Your task to perform on an android device: Open settings Image 0: 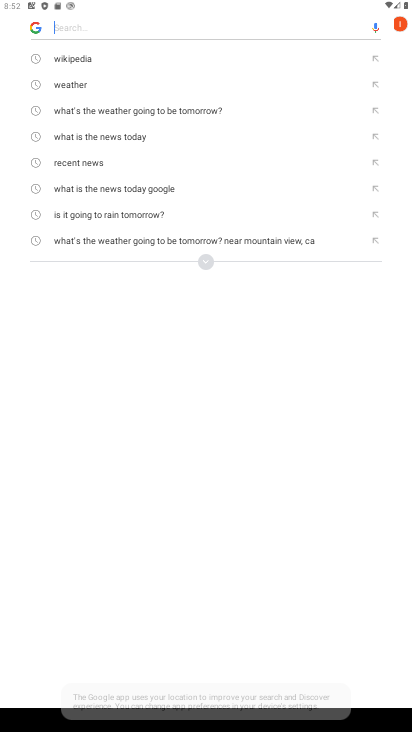
Step 0: press home button
Your task to perform on an android device: Open settings Image 1: 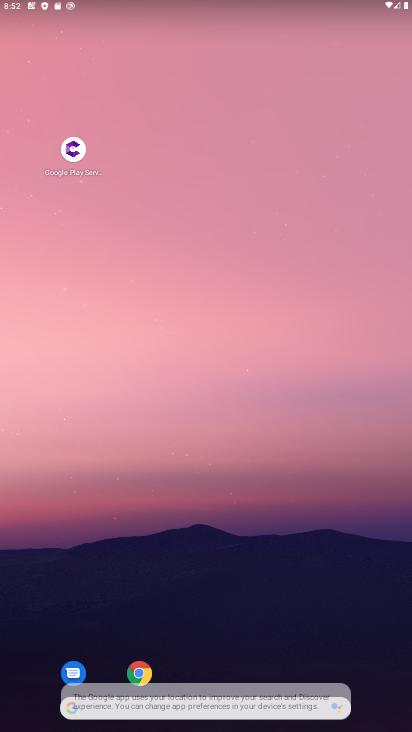
Step 1: drag from (380, 694) to (297, 99)
Your task to perform on an android device: Open settings Image 2: 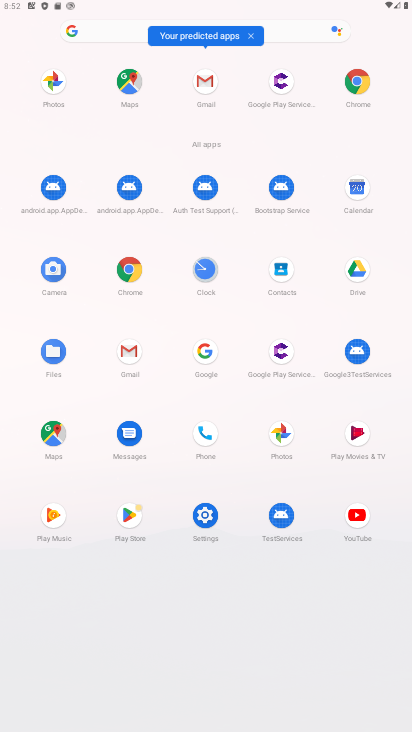
Step 2: click (203, 520)
Your task to perform on an android device: Open settings Image 3: 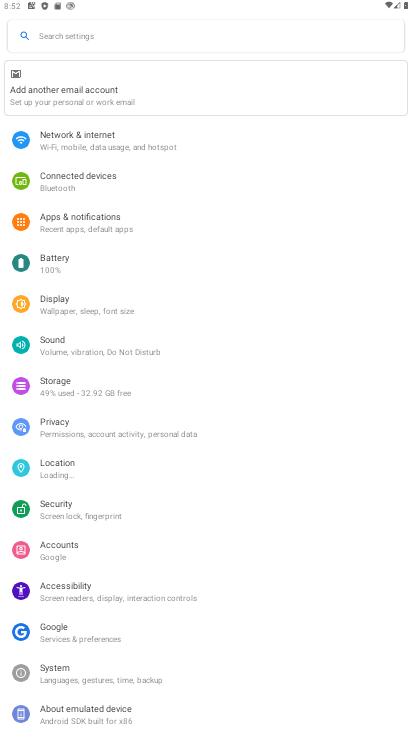
Step 3: task complete